Your task to perform on an android device: Go to Google Image 0: 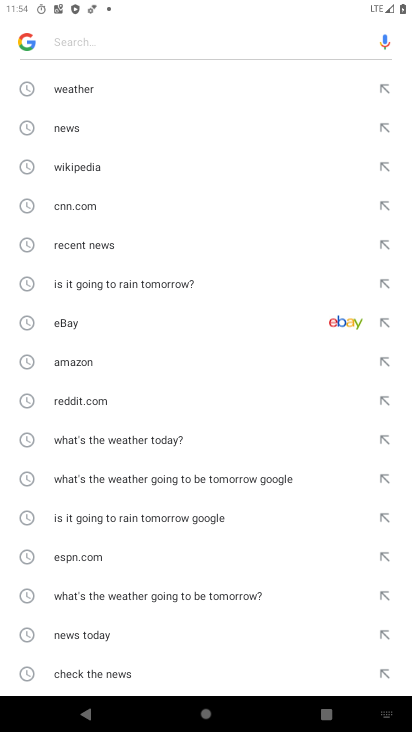
Step 0: press home button
Your task to perform on an android device: Go to Google Image 1: 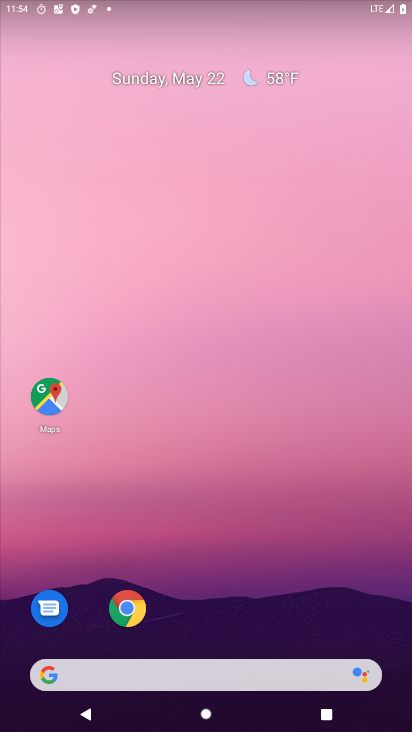
Step 1: drag from (201, 622) to (178, 180)
Your task to perform on an android device: Go to Google Image 2: 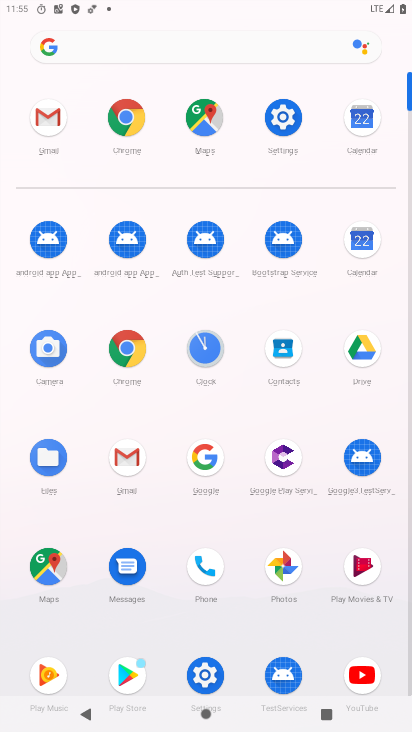
Step 2: click (202, 469)
Your task to perform on an android device: Go to Google Image 3: 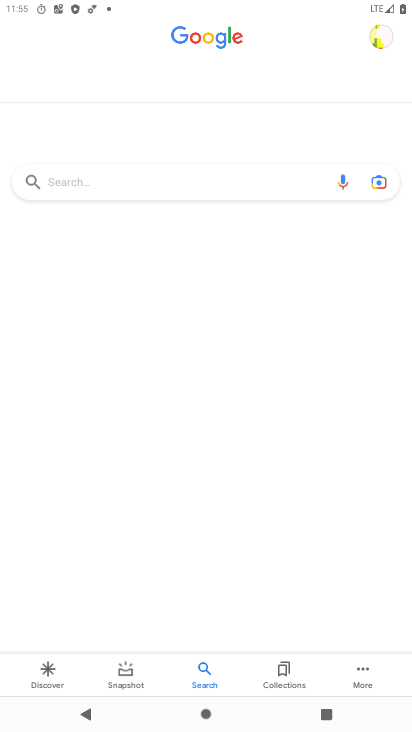
Step 3: task complete